Your task to perform on an android device: Check the news Image 0: 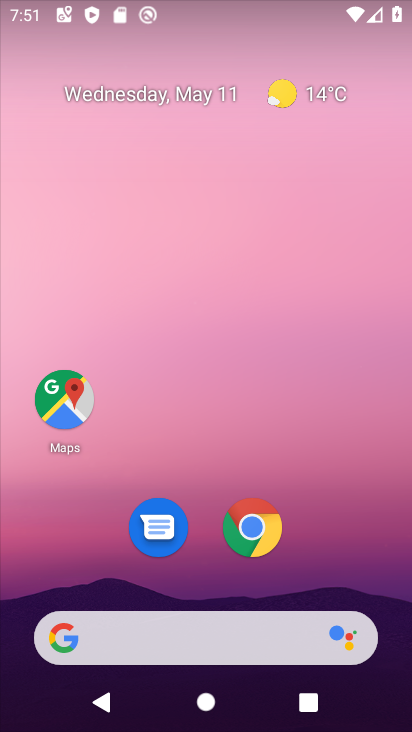
Step 0: drag from (235, 550) to (236, 115)
Your task to perform on an android device: Check the news Image 1: 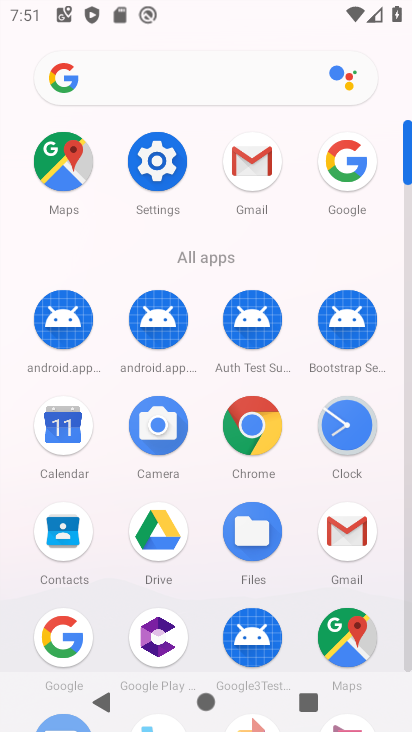
Step 1: click (74, 654)
Your task to perform on an android device: Check the news Image 2: 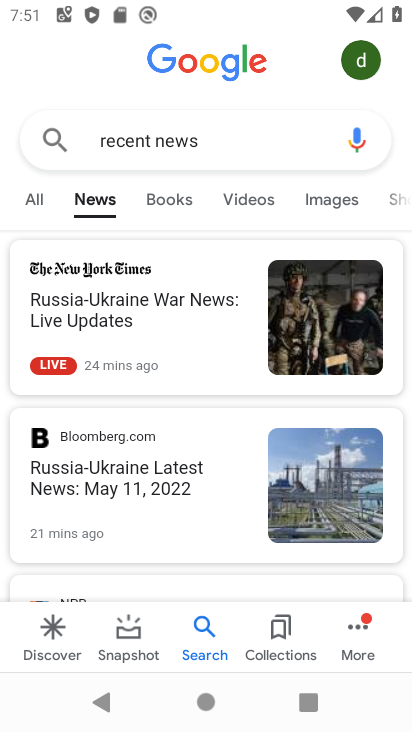
Step 2: click (225, 100)
Your task to perform on an android device: Check the news Image 3: 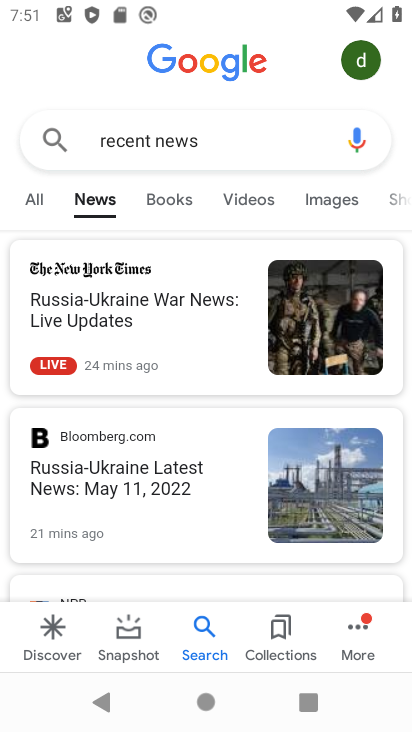
Step 3: task complete